Your task to perform on an android device: change notifications settings Image 0: 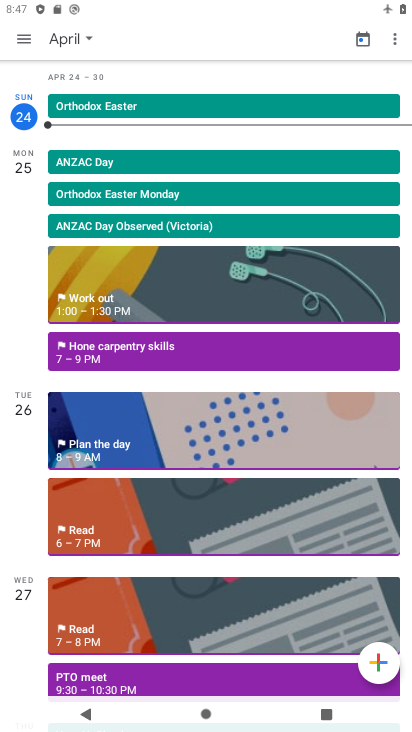
Step 0: press home button
Your task to perform on an android device: change notifications settings Image 1: 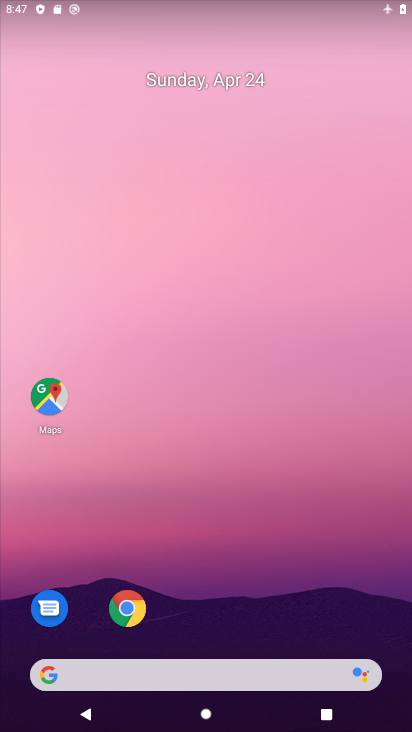
Step 1: drag from (215, 627) to (191, 139)
Your task to perform on an android device: change notifications settings Image 2: 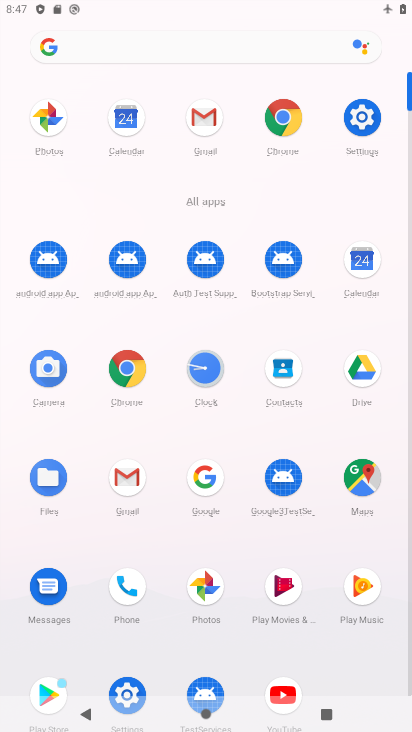
Step 2: click (362, 133)
Your task to perform on an android device: change notifications settings Image 3: 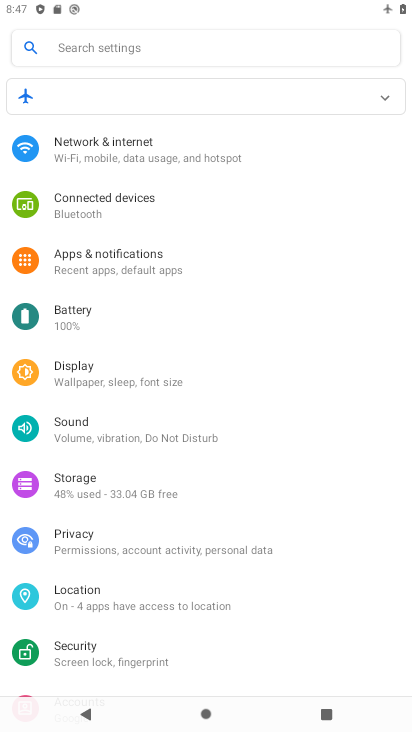
Step 3: click (172, 269)
Your task to perform on an android device: change notifications settings Image 4: 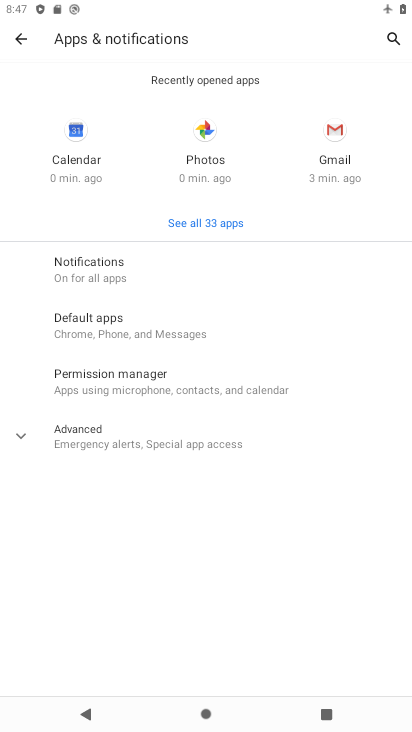
Step 4: click (159, 279)
Your task to perform on an android device: change notifications settings Image 5: 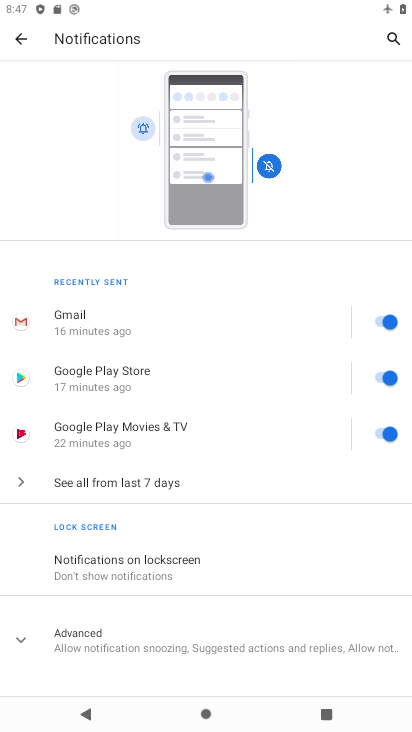
Step 5: task complete